Your task to perform on an android device: Show the shopping cart on newegg. Search for "bose soundlink" on newegg, select the first entry, and add it to the cart. Image 0: 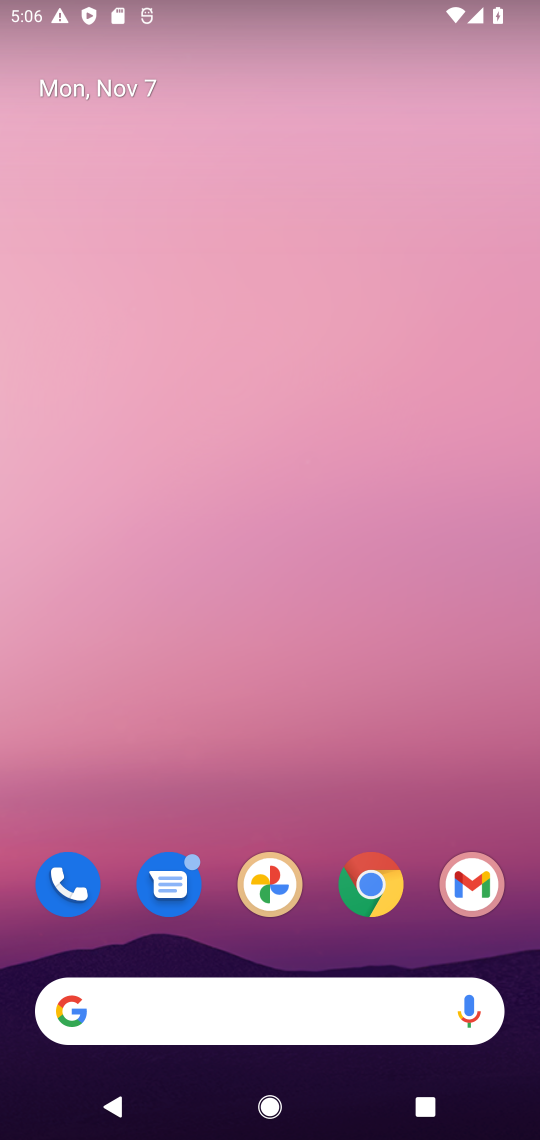
Step 0: drag from (297, 913) to (309, 124)
Your task to perform on an android device: Show the shopping cart on newegg. Search for "bose soundlink" on newegg, select the first entry, and add it to the cart. Image 1: 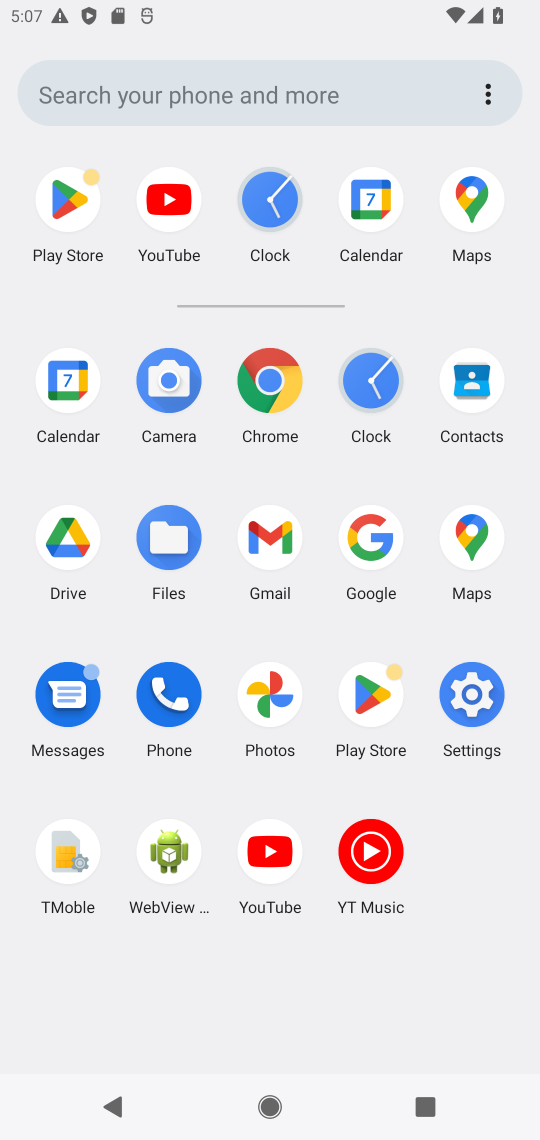
Step 1: click (269, 376)
Your task to perform on an android device: Show the shopping cart on newegg. Search for "bose soundlink" on newegg, select the first entry, and add it to the cart. Image 2: 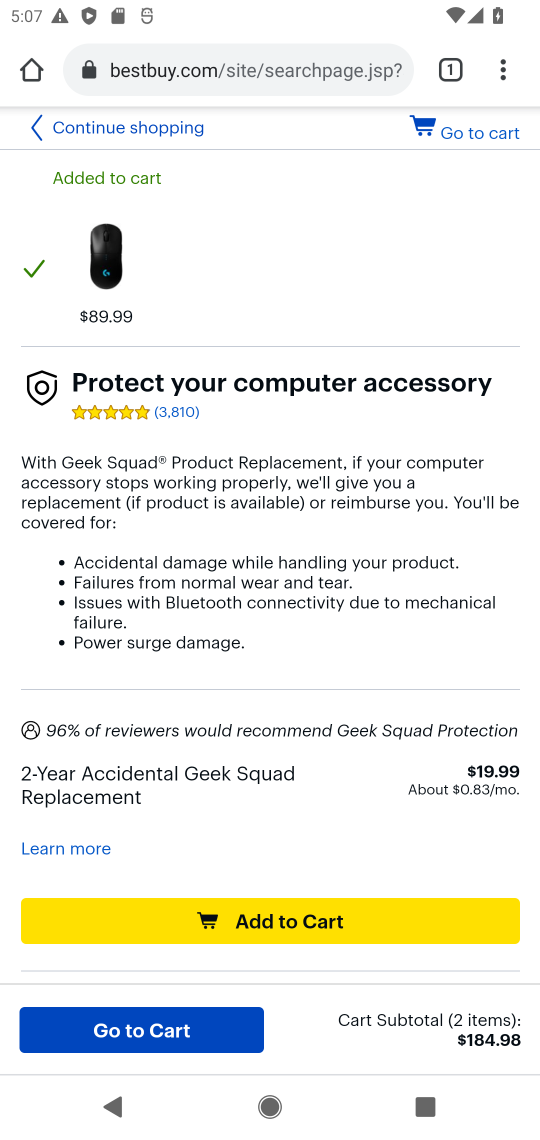
Step 2: click (286, 75)
Your task to perform on an android device: Show the shopping cart on newegg. Search for "bose soundlink" on newegg, select the first entry, and add it to the cart. Image 3: 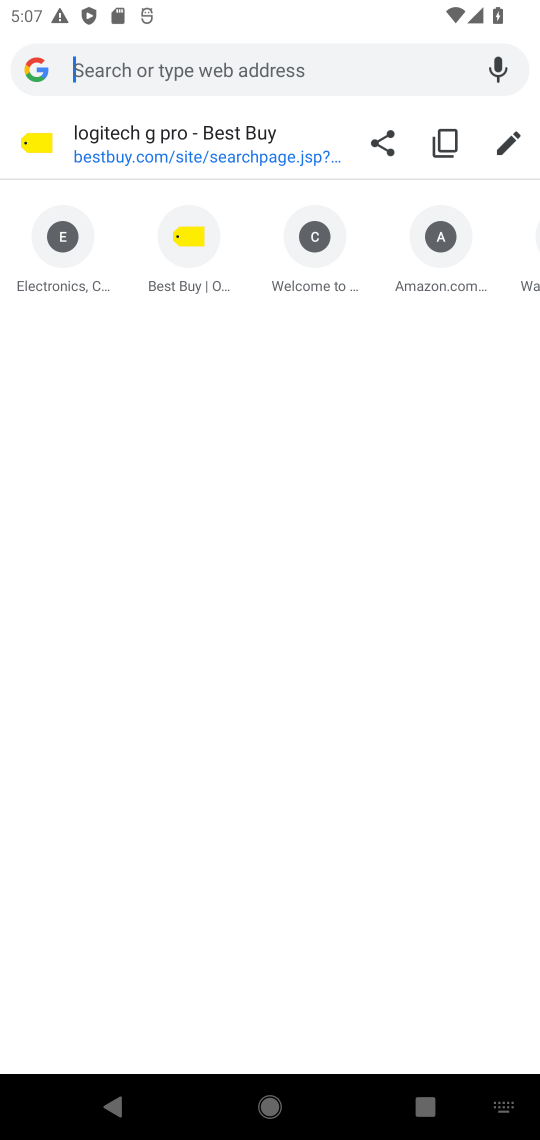
Step 3: type "newegg.com"
Your task to perform on an android device: Show the shopping cart on newegg. Search for "bose soundlink" on newegg, select the first entry, and add it to the cart. Image 4: 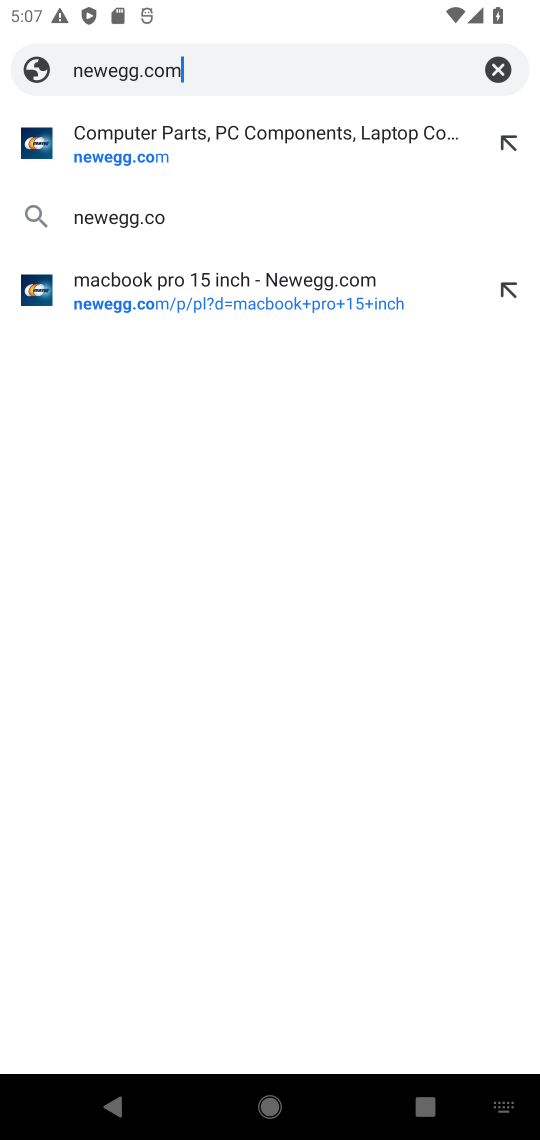
Step 4: press enter
Your task to perform on an android device: Show the shopping cart on newegg. Search for "bose soundlink" on newegg, select the first entry, and add it to the cart. Image 5: 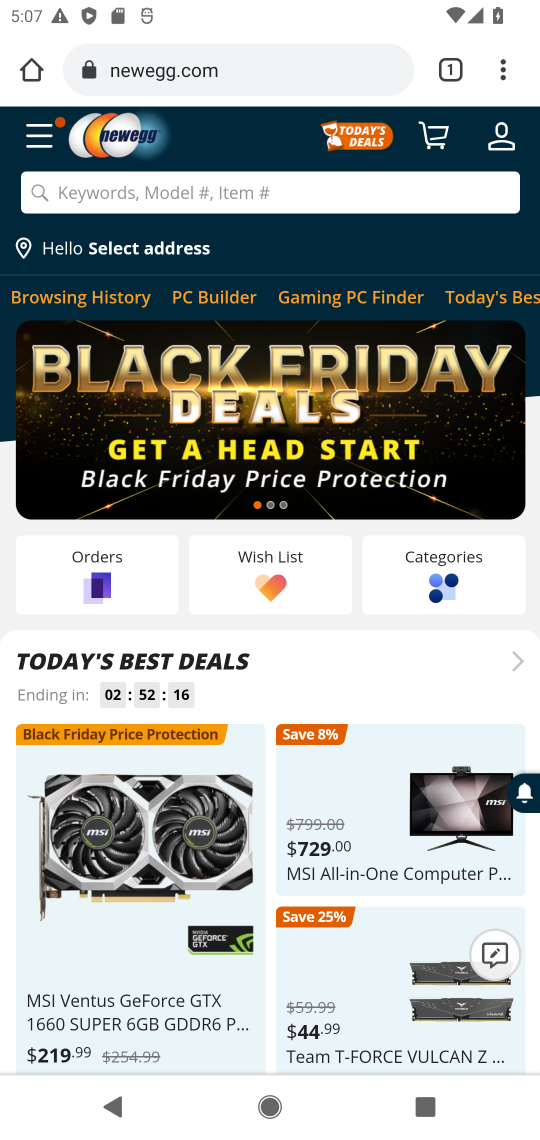
Step 5: click (234, 192)
Your task to perform on an android device: Show the shopping cart on newegg. Search for "bose soundlink" on newegg, select the first entry, and add it to the cart. Image 6: 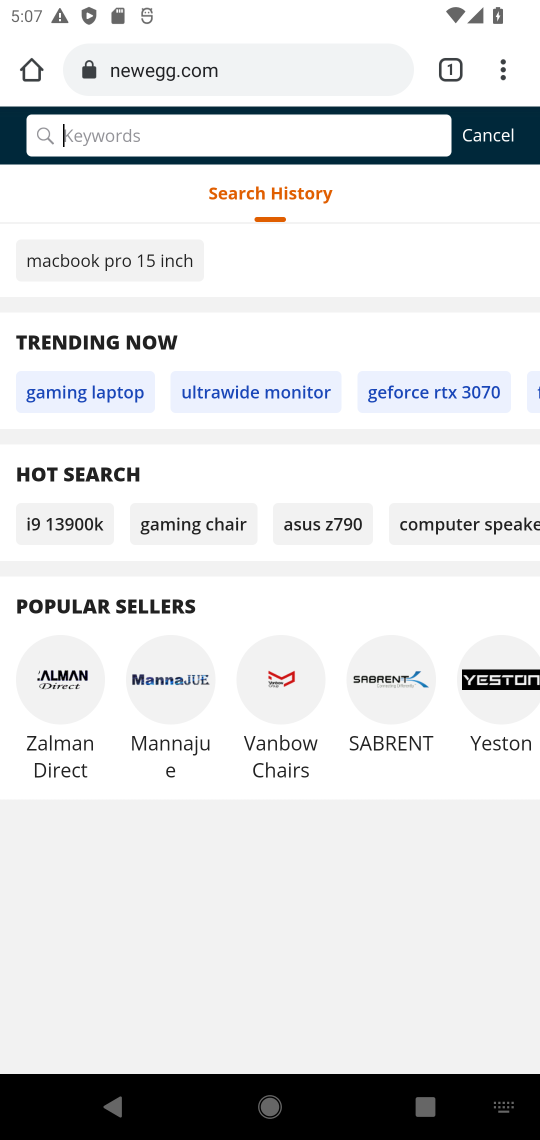
Step 6: type "bose soundlink"
Your task to perform on an android device: Show the shopping cart on newegg. Search for "bose soundlink" on newegg, select the first entry, and add it to the cart. Image 7: 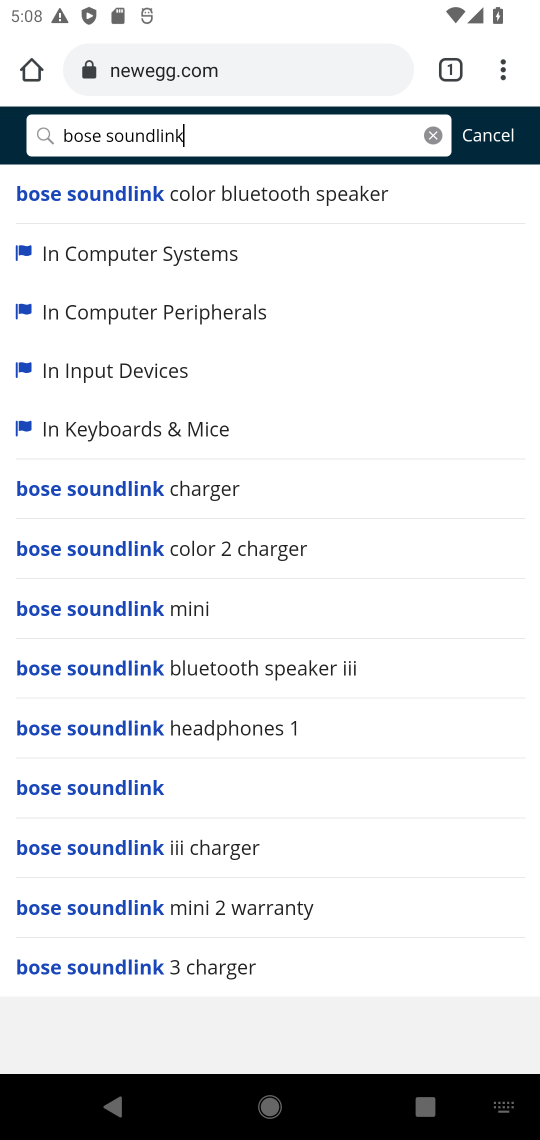
Step 7: press enter
Your task to perform on an android device: Show the shopping cart on newegg. Search for "bose soundlink" on newegg, select the first entry, and add it to the cart. Image 8: 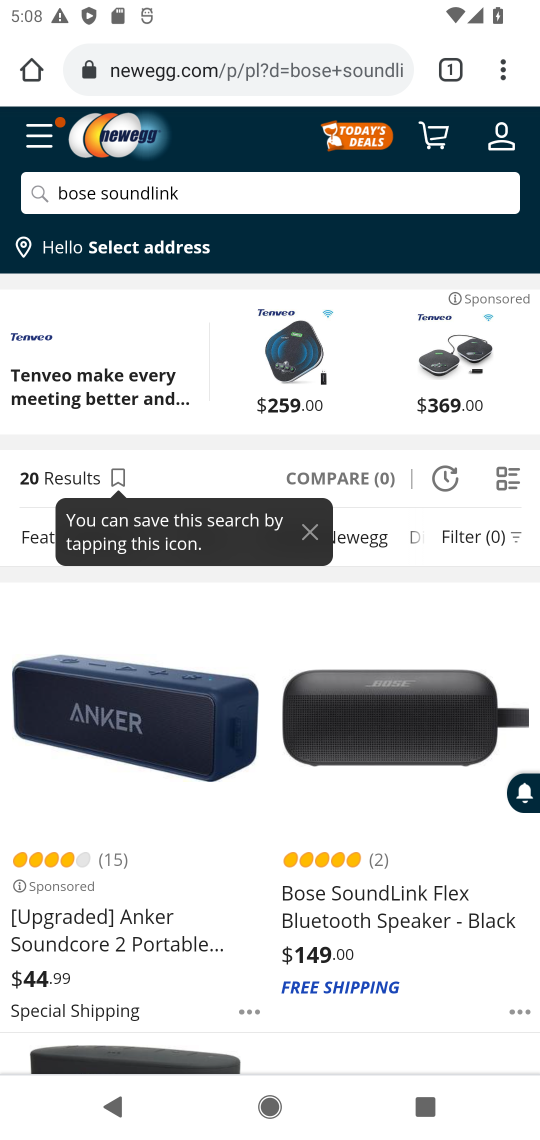
Step 8: drag from (321, 925) to (365, 335)
Your task to perform on an android device: Show the shopping cart on newegg. Search for "bose soundlink" on newegg, select the first entry, and add it to the cart. Image 9: 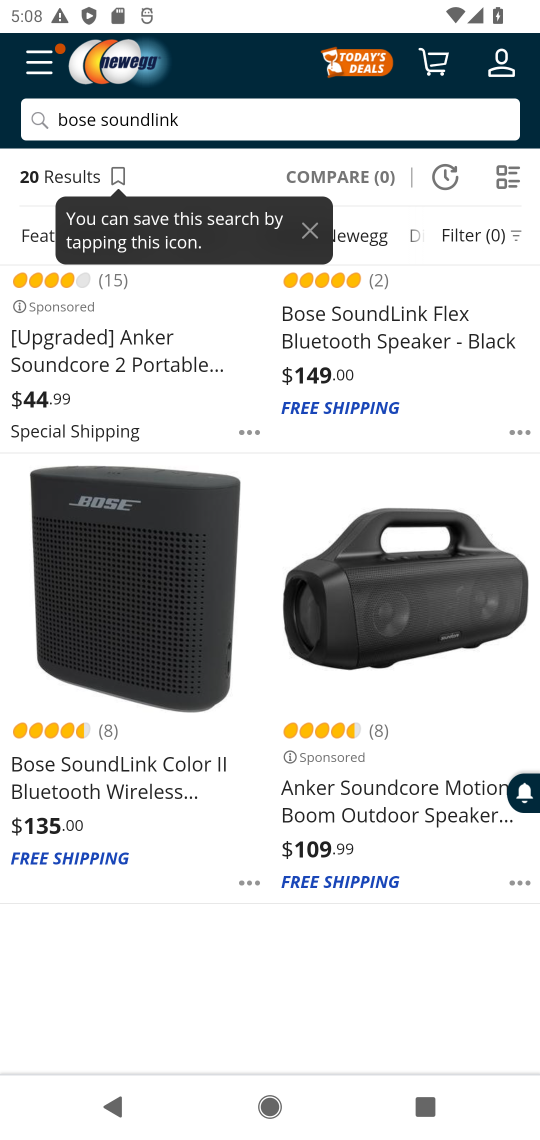
Step 9: click (423, 346)
Your task to perform on an android device: Show the shopping cart on newegg. Search for "bose soundlink" on newegg, select the first entry, and add it to the cart. Image 10: 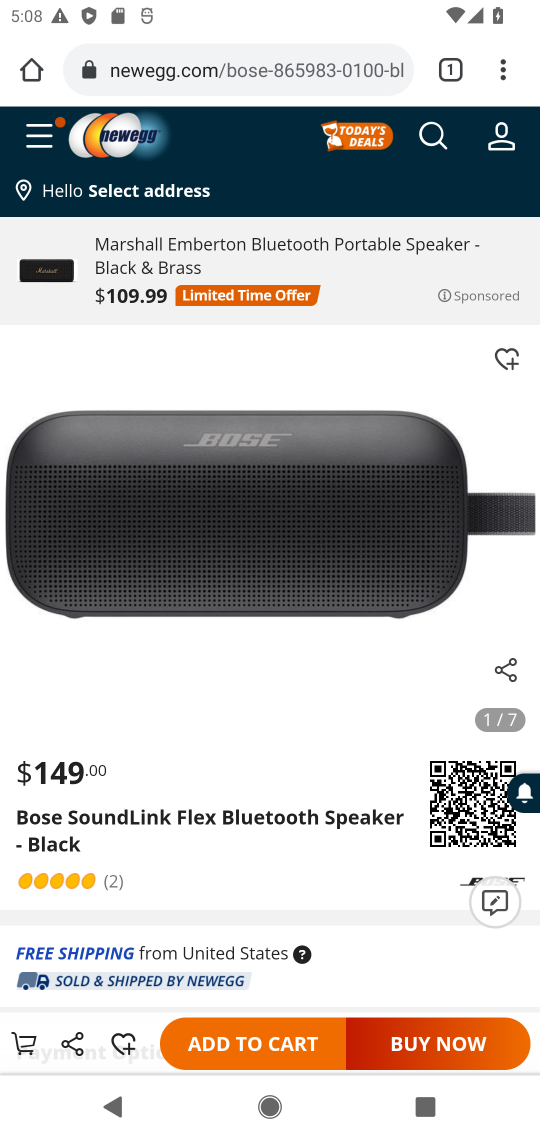
Step 10: drag from (300, 767) to (323, 310)
Your task to perform on an android device: Show the shopping cart on newegg. Search for "bose soundlink" on newegg, select the first entry, and add it to the cart. Image 11: 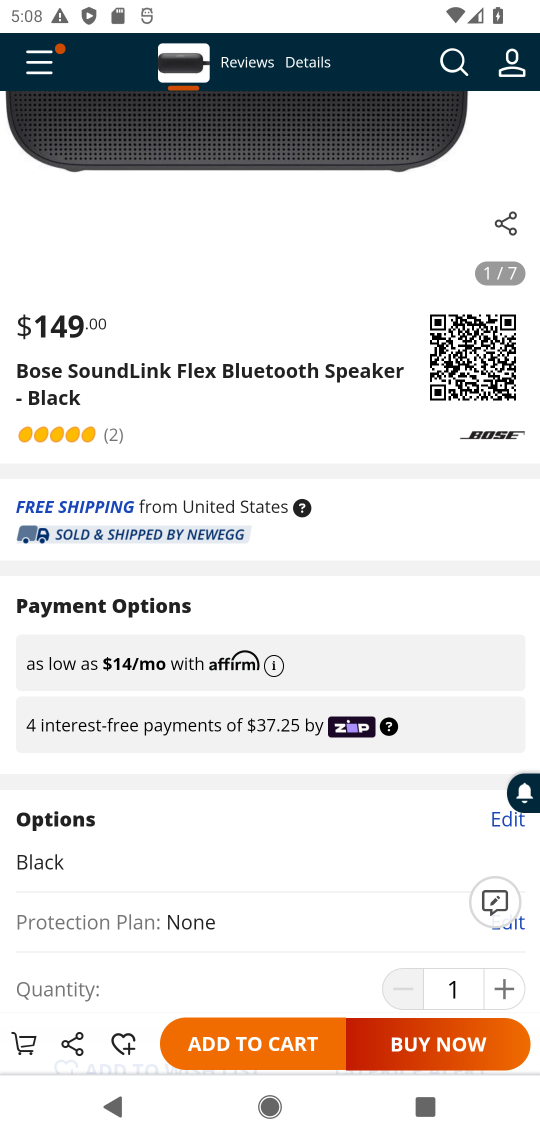
Step 11: click (249, 1045)
Your task to perform on an android device: Show the shopping cart on newegg. Search for "bose soundlink" on newegg, select the first entry, and add it to the cart. Image 12: 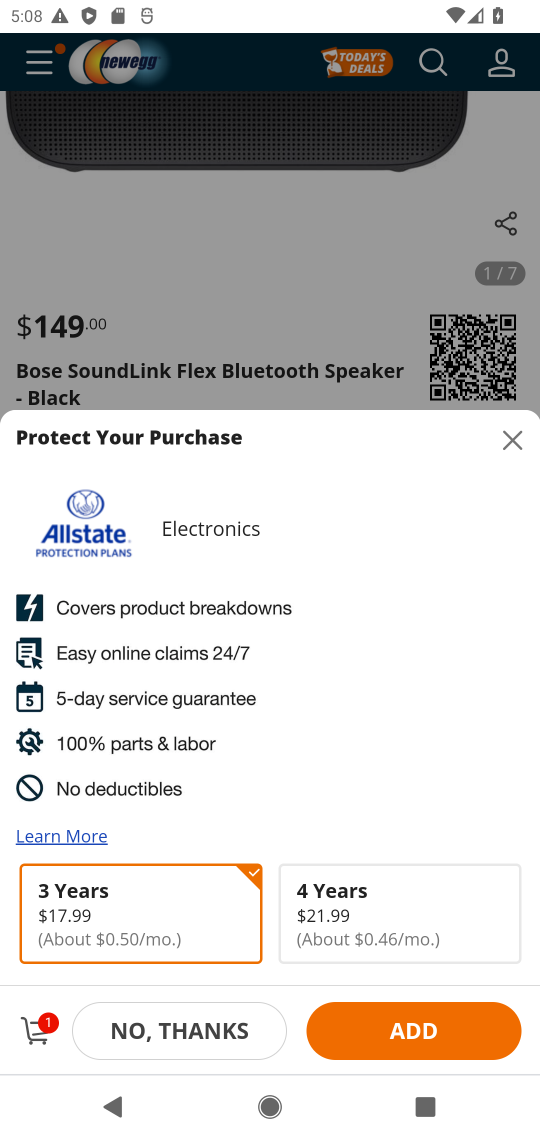
Step 12: click (39, 1030)
Your task to perform on an android device: Show the shopping cart on newegg. Search for "bose soundlink" on newegg, select the first entry, and add it to the cart. Image 13: 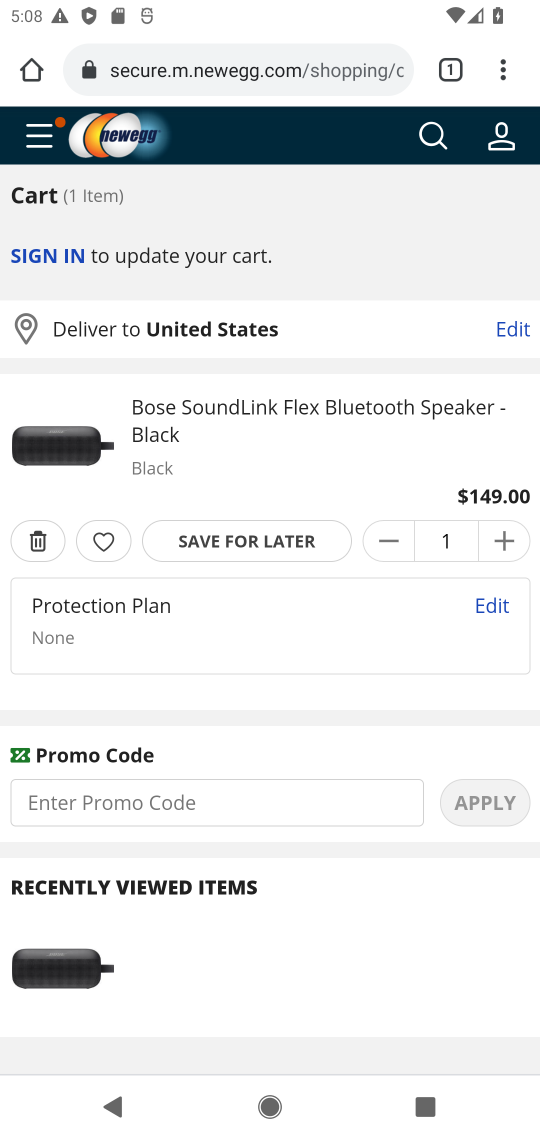
Step 13: task complete